Your task to perform on an android device: Do I have any events tomorrow? Image 0: 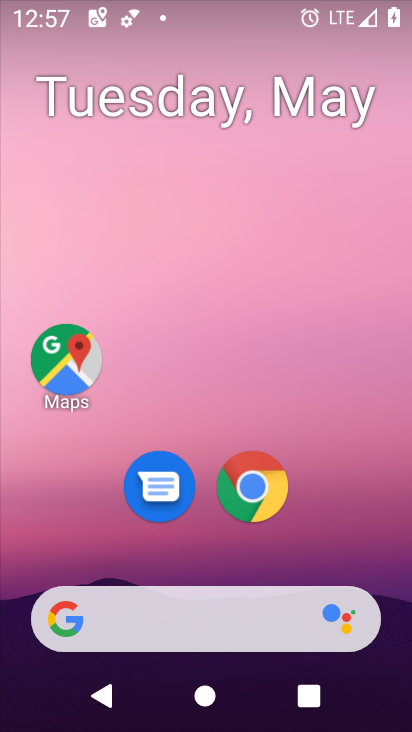
Step 0: drag from (163, 455) to (341, 177)
Your task to perform on an android device: Do I have any events tomorrow? Image 1: 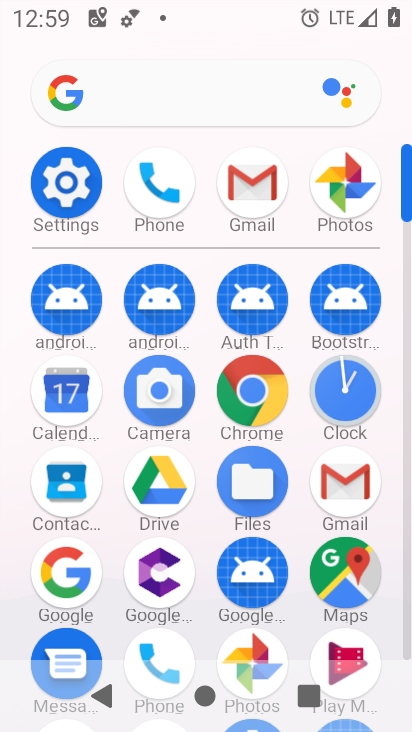
Step 1: click (49, 388)
Your task to perform on an android device: Do I have any events tomorrow? Image 2: 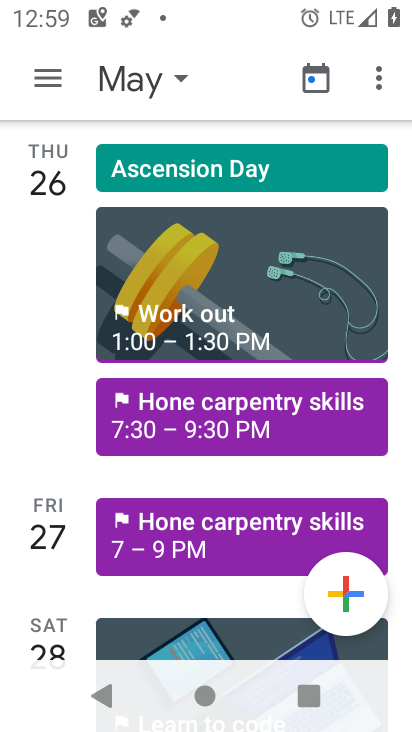
Step 2: click (142, 83)
Your task to perform on an android device: Do I have any events tomorrow? Image 3: 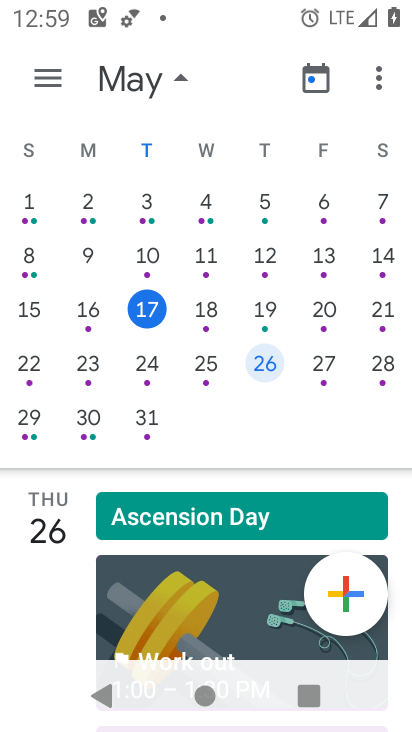
Step 3: click (215, 306)
Your task to perform on an android device: Do I have any events tomorrow? Image 4: 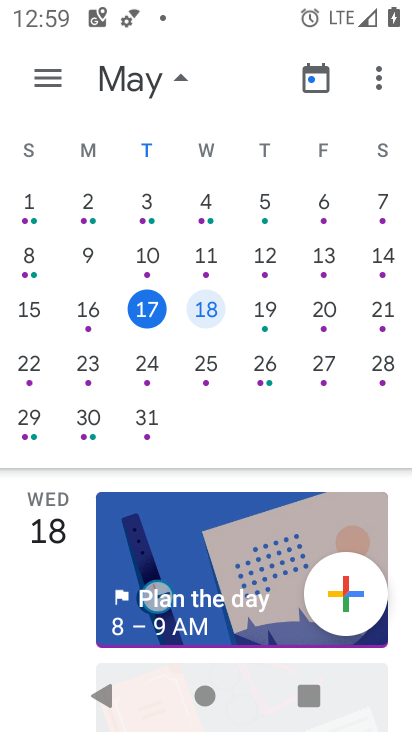
Step 4: task complete